Your task to perform on an android device: Open eBay Image 0: 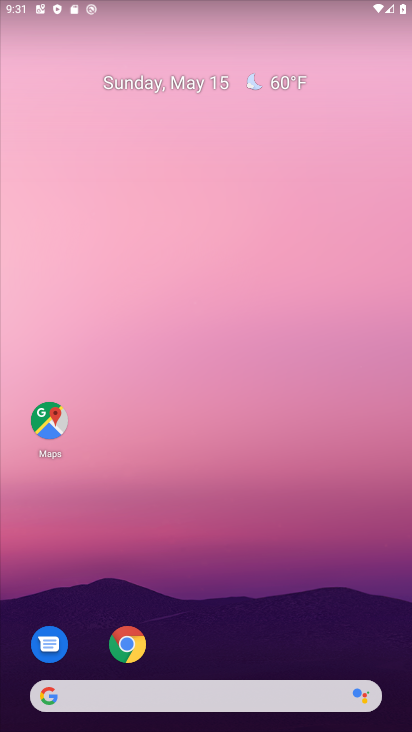
Step 0: click (126, 646)
Your task to perform on an android device: Open eBay Image 1: 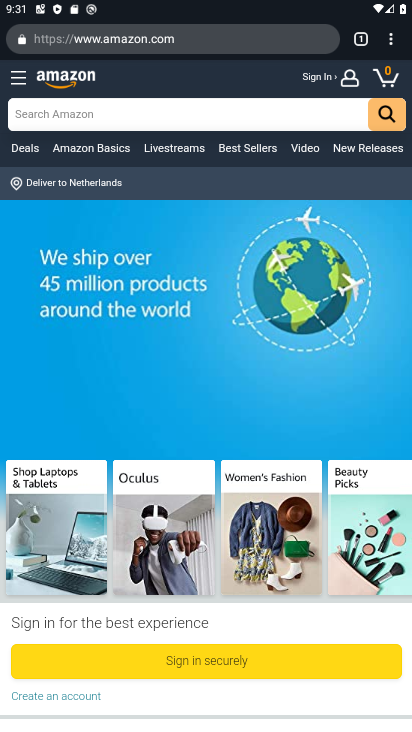
Step 1: click (356, 44)
Your task to perform on an android device: Open eBay Image 2: 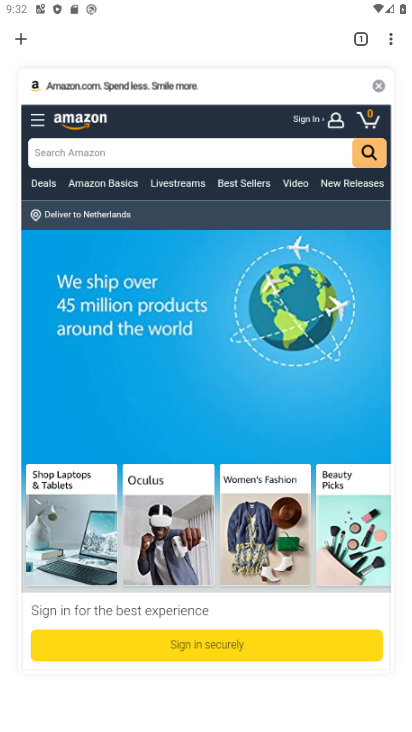
Step 2: click (17, 38)
Your task to perform on an android device: Open eBay Image 3: 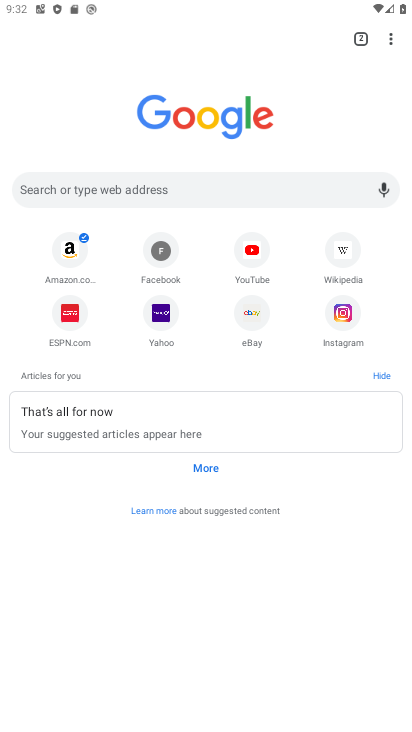
Step 3: click (247, 310)
Your task to perform on an android device: Open eBay Image 4: 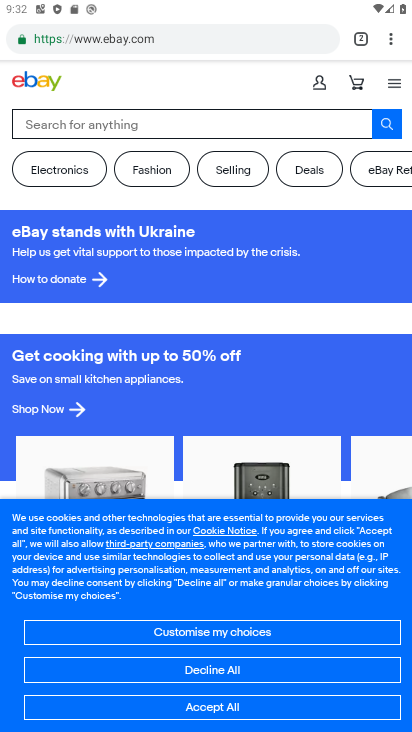
Step 4: task complete